Your task to perform on an android device: see tabs open on other devices in the chrome app Image 0: 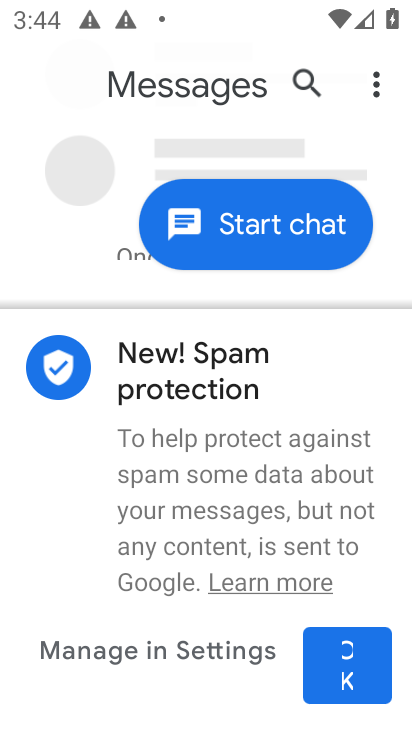
Step 0: press home button
Your task to perform on an android device: see tabs open on other devices in the chrome app Image 1: 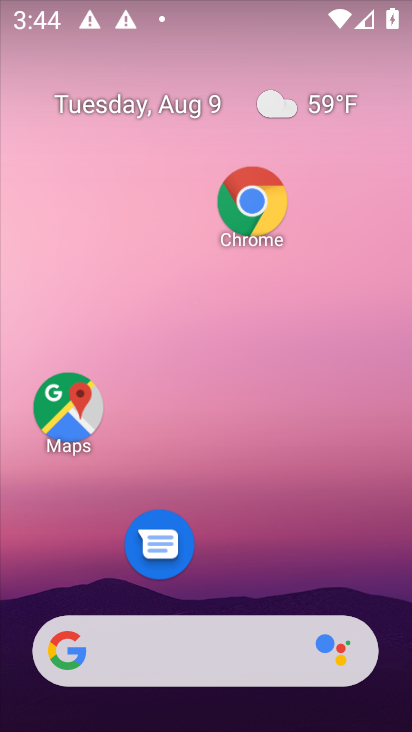
Step 1: drag from (113, 580) to (158, 47)
Your task to perform on an android device: see tabs open on other devices in the chrome app Image 2: 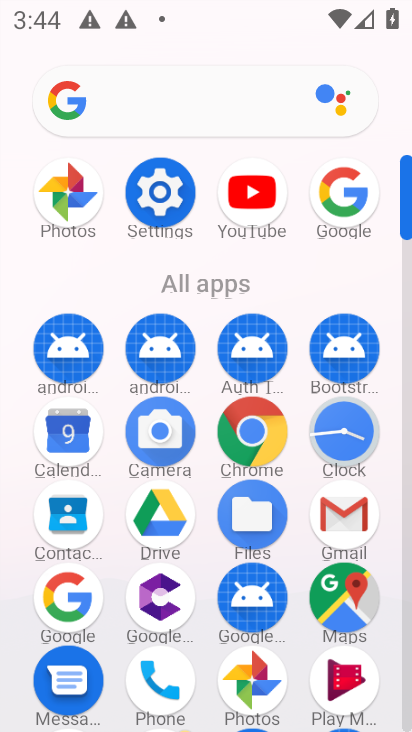
Step 2: click (258, 414)
Your task to perform on an android device: see tabs open on other devices in the chrome app Image 3: 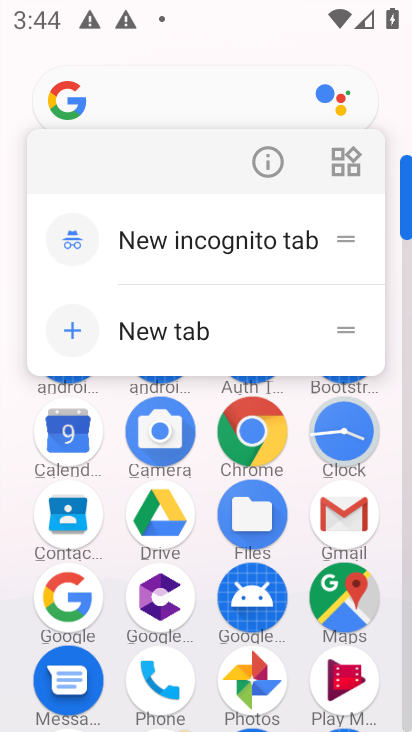
Step 3: click (256, 435)
Your task to perform on an android device: see tabs open on other devices in the chrome app Image 4: 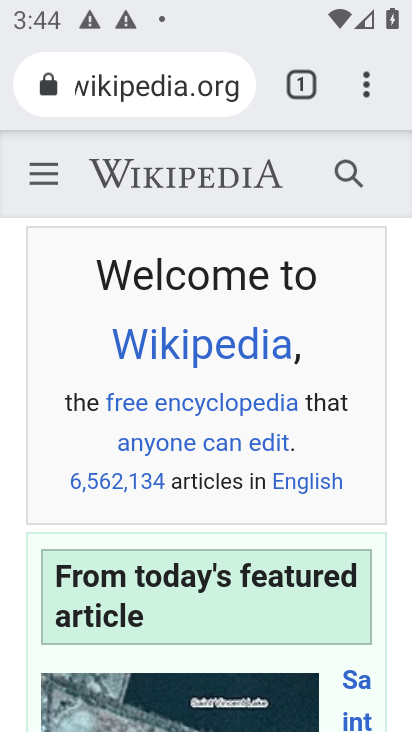
Step 4: click (374, 77)
Your task to perform on an android device: see tabs open on other devices in the chrome app Image 5: 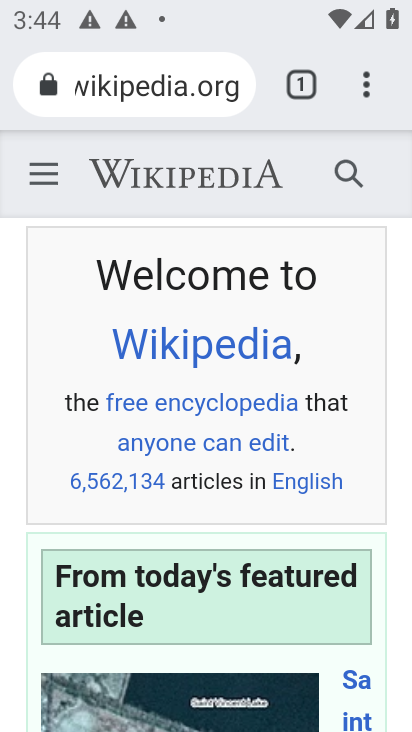
Step 5: click (297, 75)
Your task to perform on an android device: see tabs open on other devices in the chrome app Image 6: 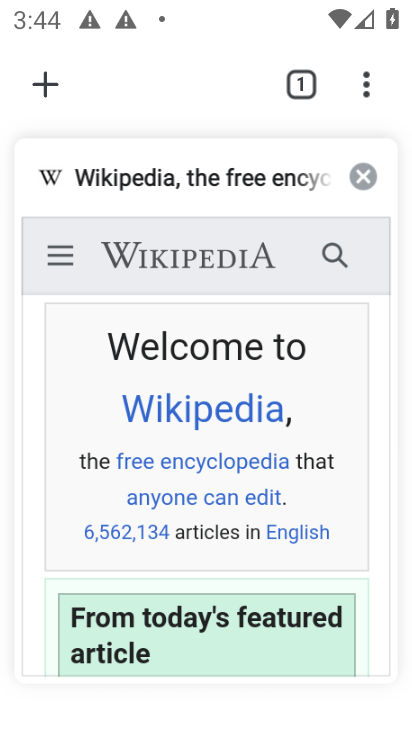
Step 6: task complete